Your task to perform on an android device: turn on notifications settings in the gmail app Image 0: 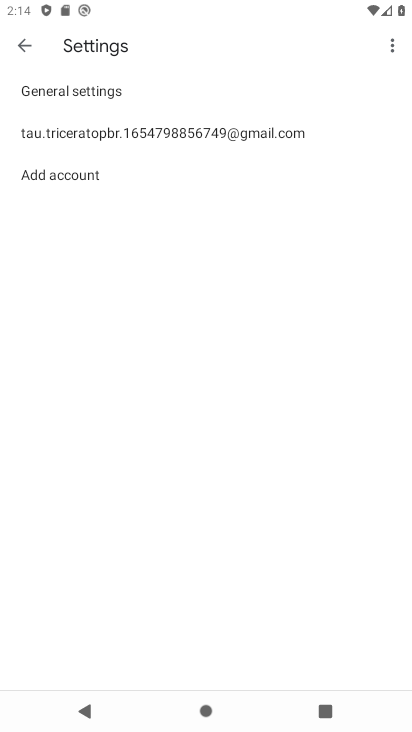
Step 0: press back button
Your task to perform on an android device: turn on notifications settings in the gmail app Image 1: 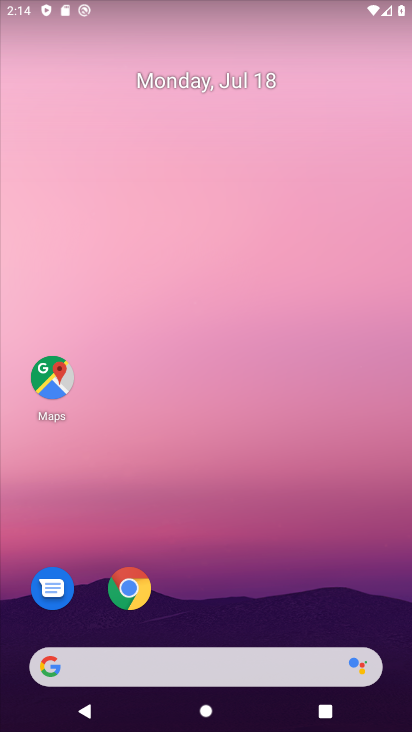
Step 1: drag from (228, 527) to (288, 9)
Your task to perform on an android device: turn on notifications settings in the gmail app Image 2: 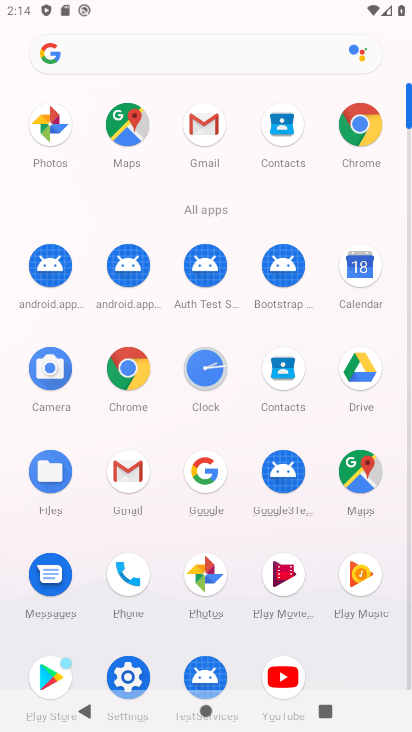
Step 2: click (194, 132)
Your task to perform on an android device: turn on notifications settings in the gmail app Image 3: 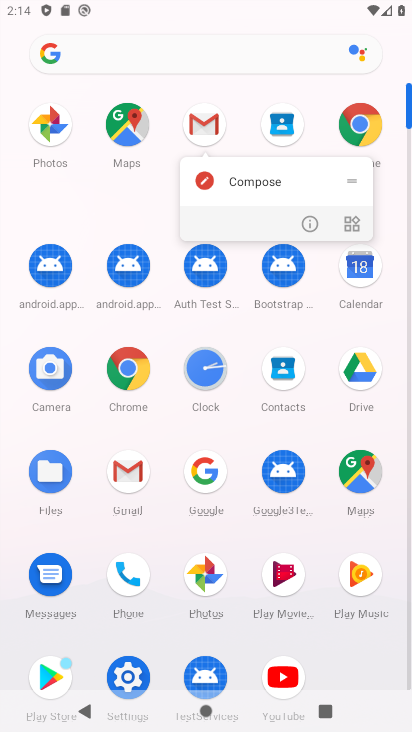
Step 3: click (317, 229)
Your task to perform on an android device: turn on notifications settings in the gmail app Image 4: 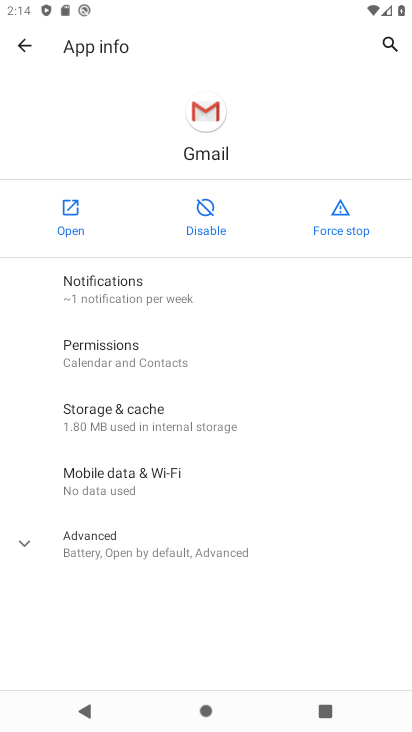
Step 4: click (150, 280)
Your task to perform on an android device: turn on notifications settings in the gmail app Image 5: 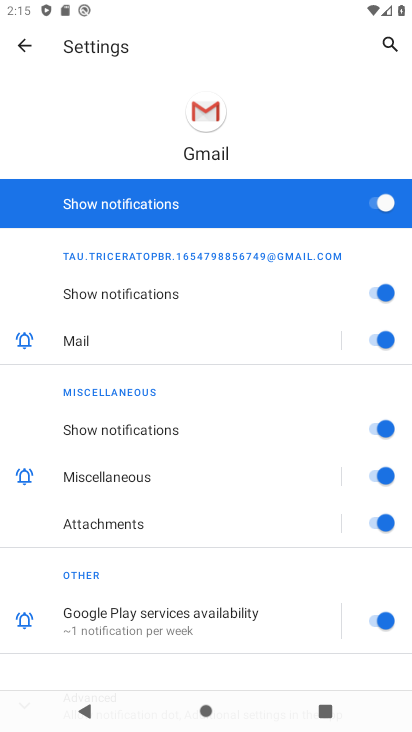
Step 5: task complete